Your task to perform on an android device: Go to network settings Image 0: 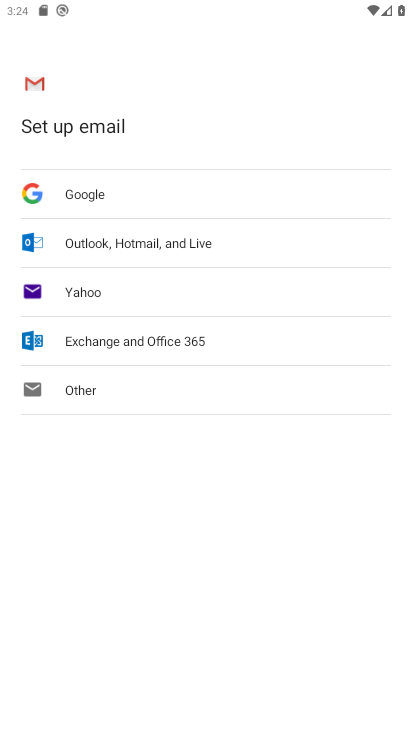
Step 0: drag from (173, 9) to (68, 663)
Your task to perform on an android device: Go to network settings Image 1: 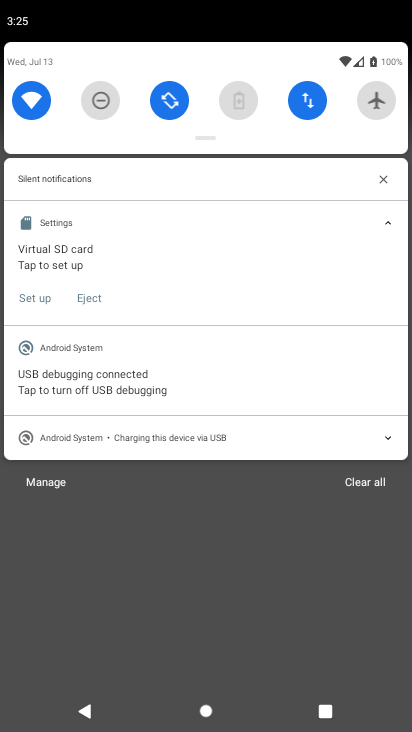
Step 1: click (298, 97)
Your task to perform on an android device: Go to network settings Image 2: 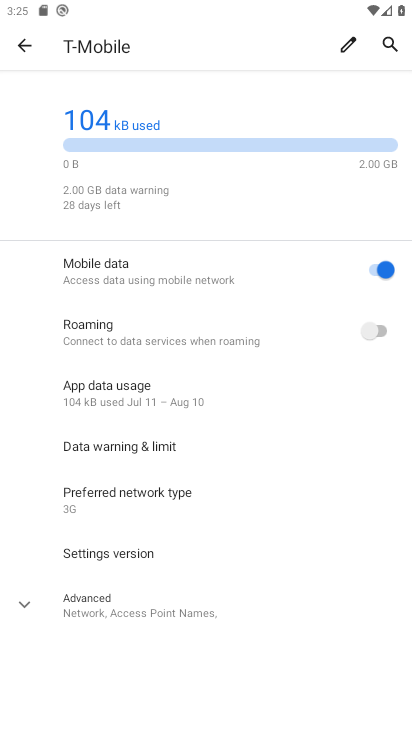
Step 2: task complete